Your task to perform on an android device: toggle airplane mode Image 0: 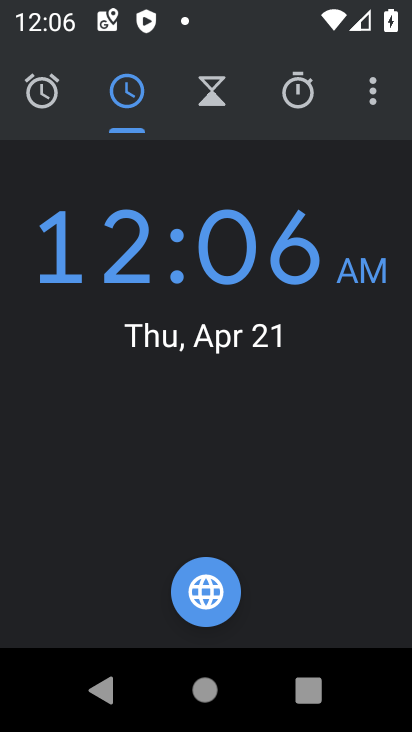
Step 0: drag from (187, 601) to (268, 257)
Your task to perform on an android device: toggle airplane mode Image 1: 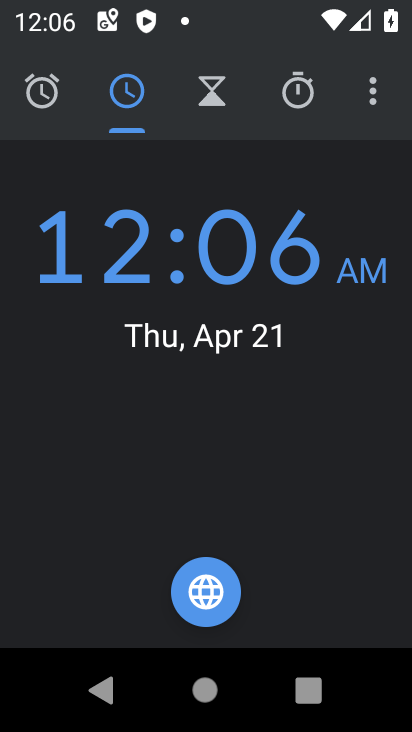
Step 1: drag from (221, 500) to (323, 87)
Your task to perform on an android device: toggle airplane mode Image 2: 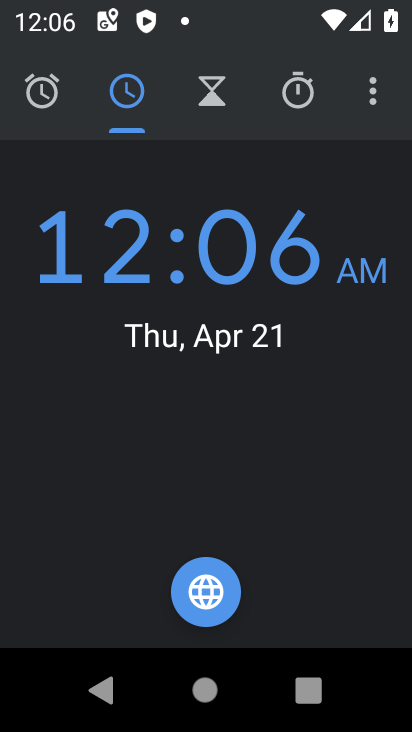
Step 2: click (381, 93)
Your task to perform on an android device: toggle airplane mode Image 3: 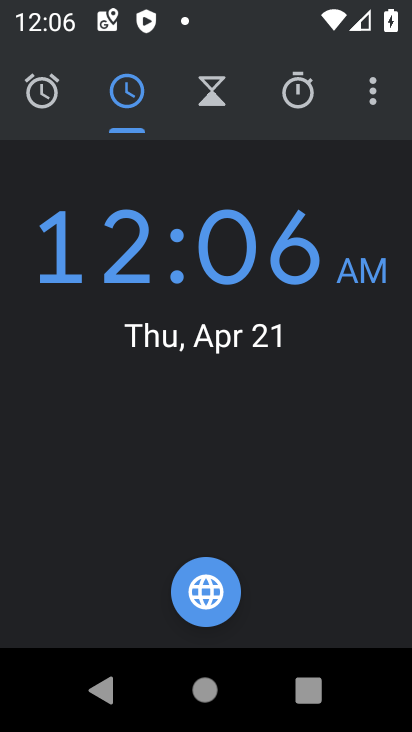
Step 3: click (361, 110)
Your task to perform on an android device: toggle airplane mode Image 4: 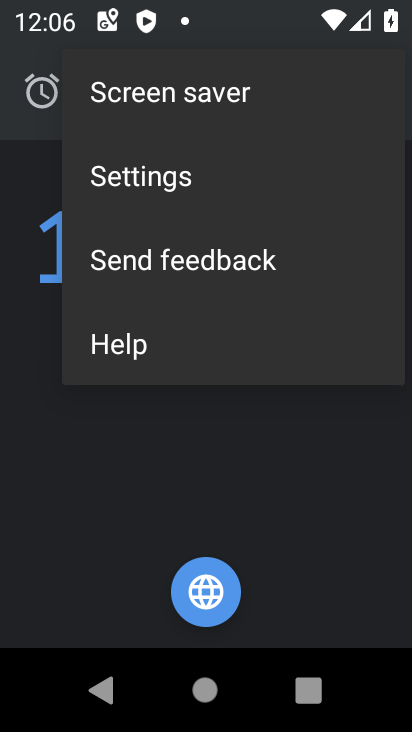
Step 4: press back button
Your task to perform on an android device: toggle airplane mode Image 5: 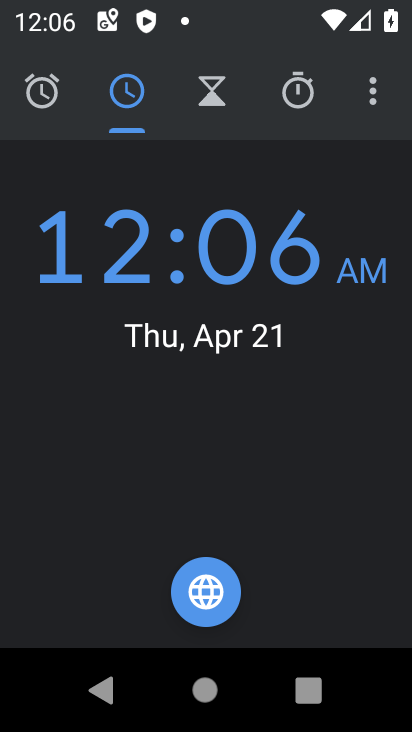
Step 5: press home button
Your task to perform on an android device: toggle airplane mode Image 6: 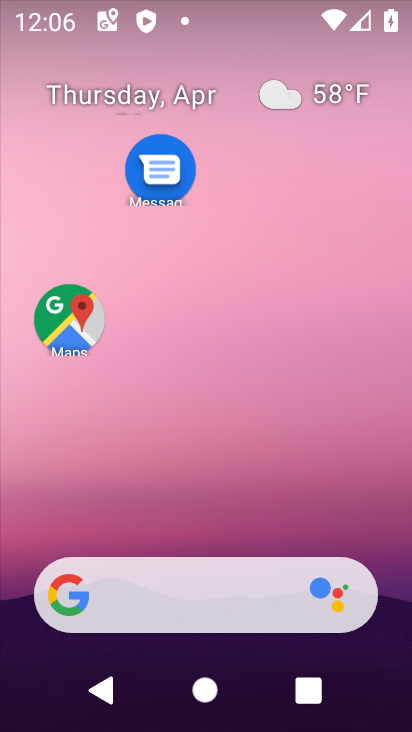
Step 6: drag from (257, 330) to (267, 65)
Your task to perform on an android device: toggle airplane mode Image 7: 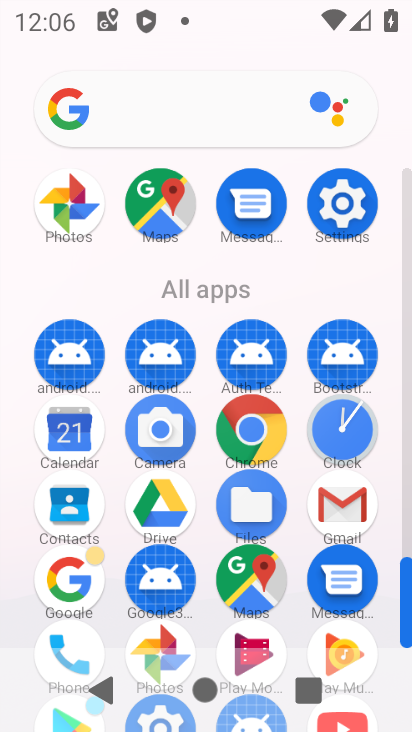
Step 7: click (351, 193)
Your task to perform on an android device: toggle airplane mode Image 8: 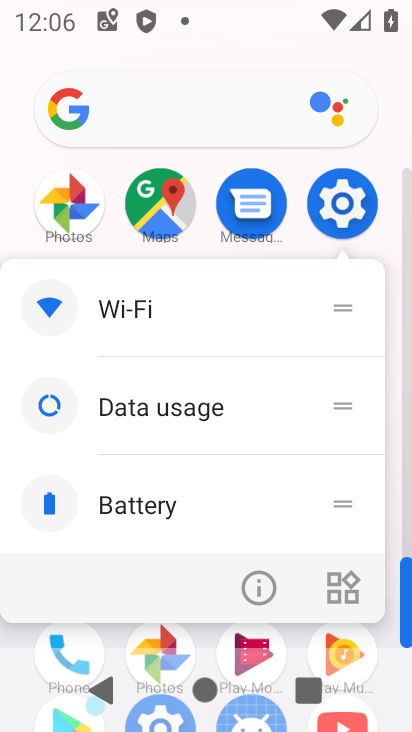
Step 8: click (269, 606)
Your task to perform on an android device: toggle airplane mode Image 9: 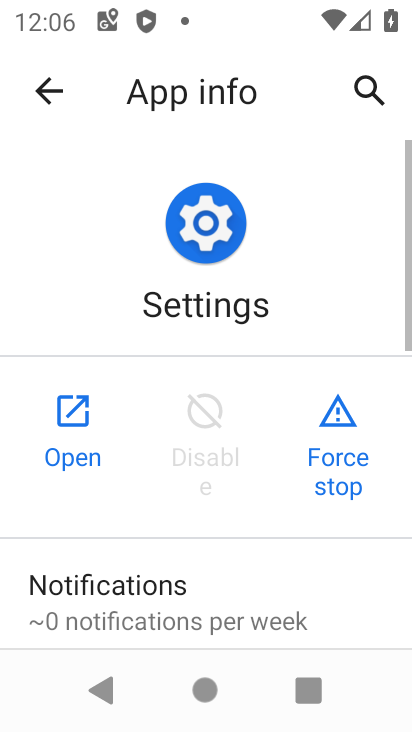
Step 9: click (74, 409)
Your task to perform on an android device: toggle airplane mode Image 10: 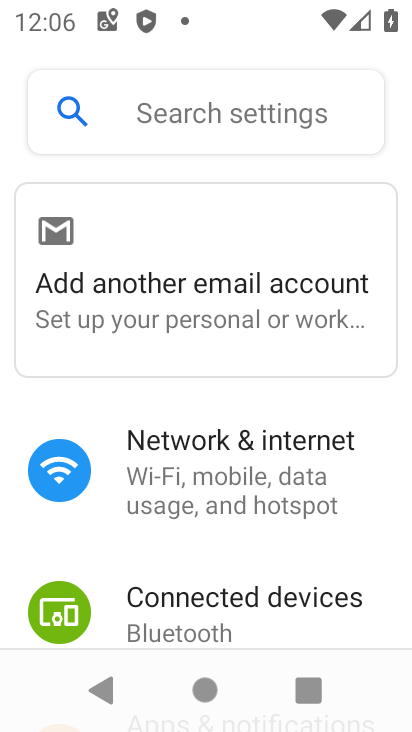
Step 10: drag from (257, 513) to (392, 4)
Your task to perform on an android device: toggle airplane mode Image 11: 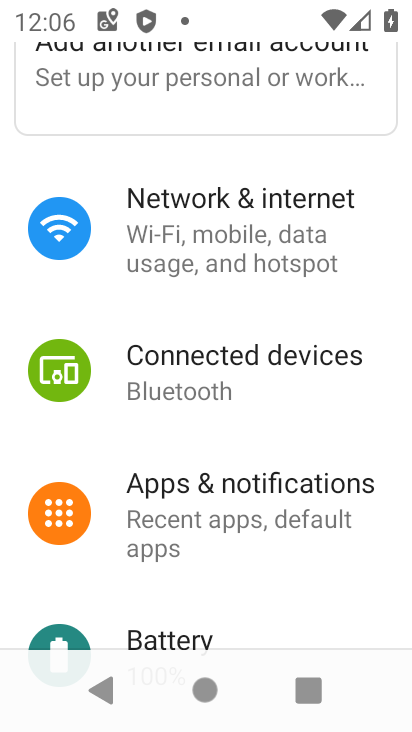
Step 11: click (226, 220)
Your task to perform on an android device: toggle airplane mode Image 12: 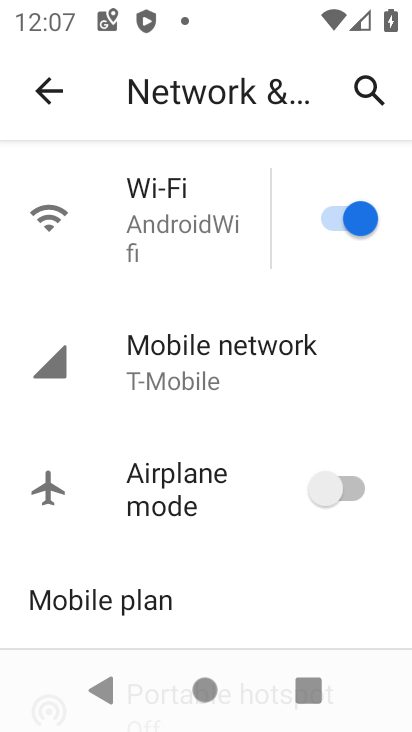
Step 12: click (238, 489)
Your task to perform on an android device: toggle airplane mode Image 13: 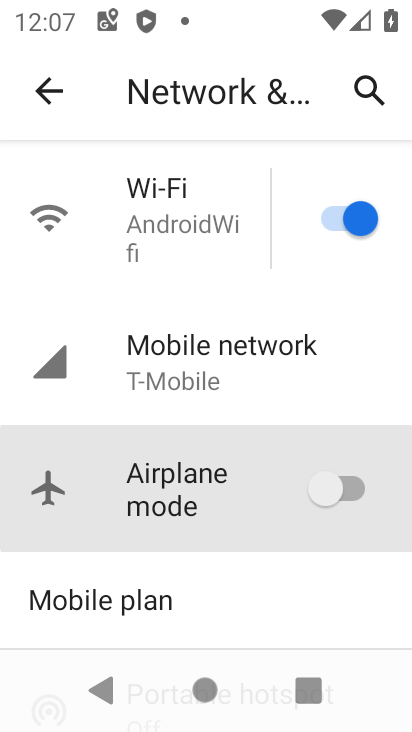
Step 13: task complete